Your task to perform on an android device: Search for sushi restaurants on Maps Image 0: 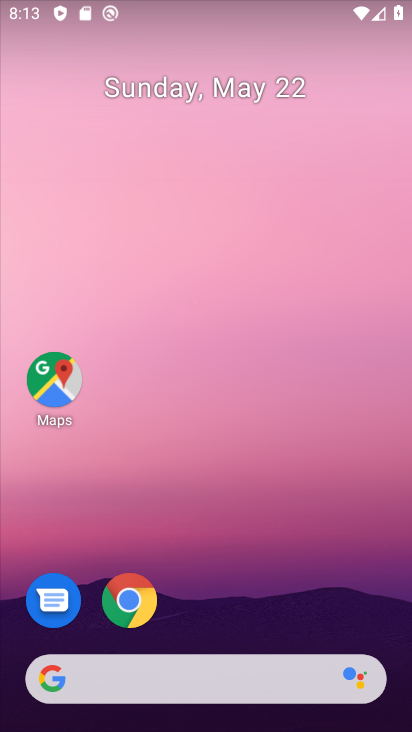
Step 0: drag from (221, 663) to (187, 130)
Your task to perform on an android device: Search for sushi restaurants on Maps Image 1: 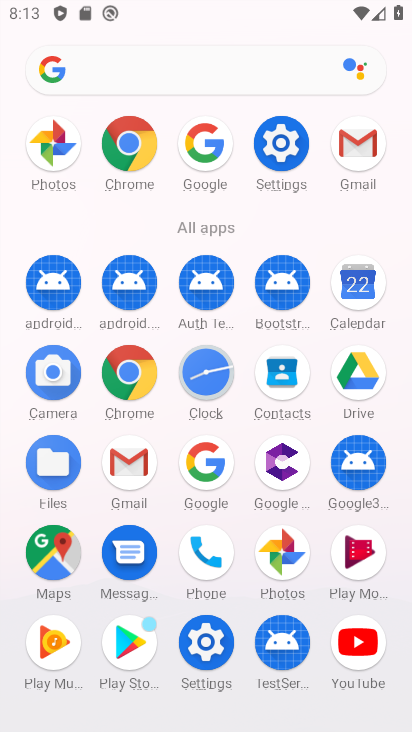
Step 1: click (57, 582)
Your task to perform on an android device: Search for sushi restaurants on Maps Image 2: 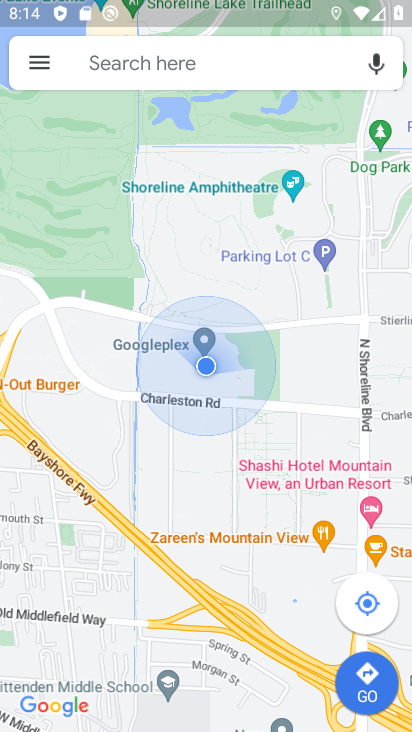
Step 2: click (57, 582)
Your task to perform on an android device: Search for sushi restaurants on Maps Image 3: 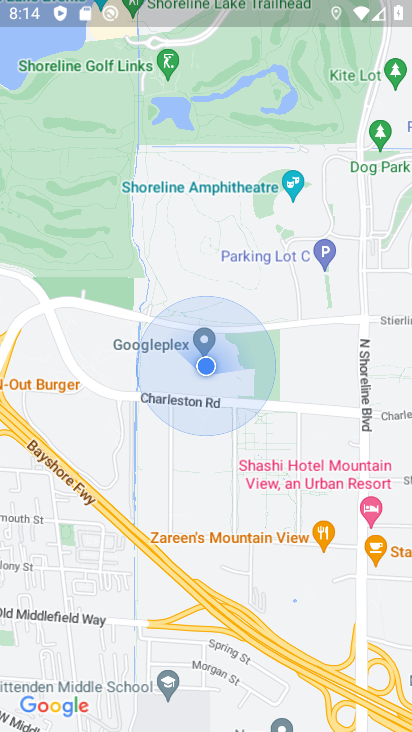
Step 3: drag from (204, 378) to (206, 484)
Your task to perform on an android device: Search for sushi restaurants on Maps Image 4: 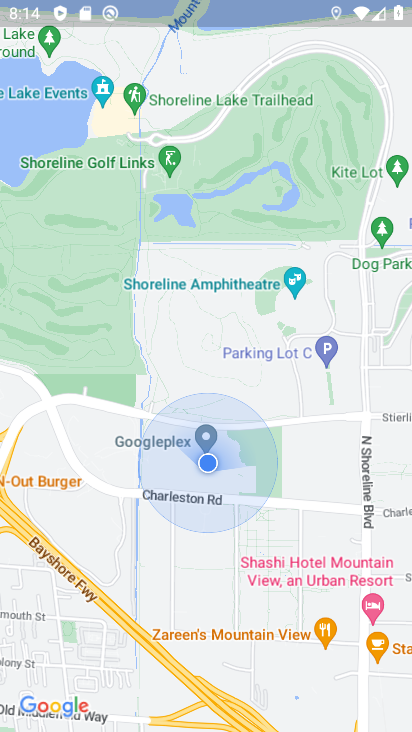
Step 4: click (285, 386)
Your task to perform on an android device: Search for sushi restaurants on Maps Image 5: 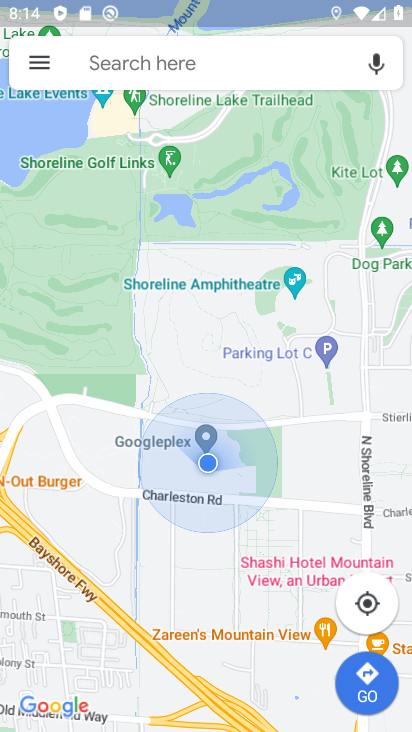
Step 5: click (281, 59)
Your task to perform on an android device: Search for sushi restaurants on Maps Image 6: 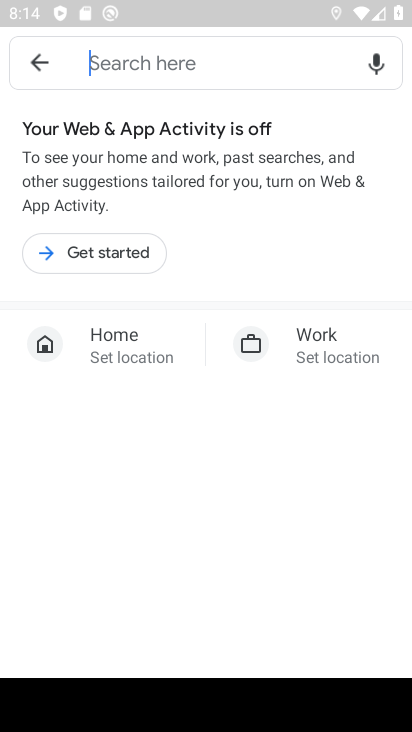
Step 6: type "syshi "
Your task to perform on an android device: Search for sushi restaurants on Maps Image 7: 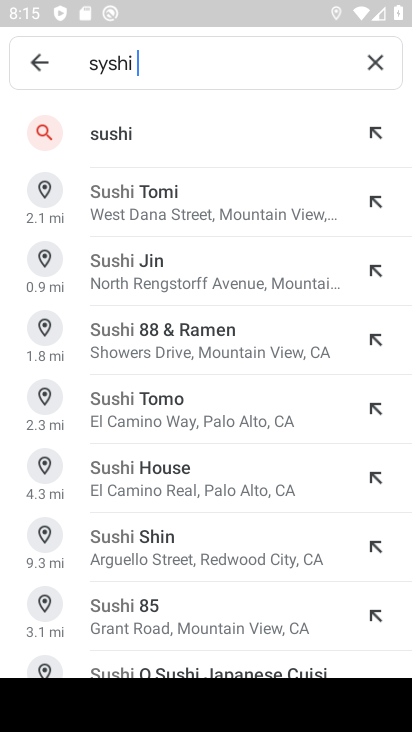
Step 7: click (375, 62)
Your task to perform on an android device: Search for sushi restaurants on Maps Image 8: 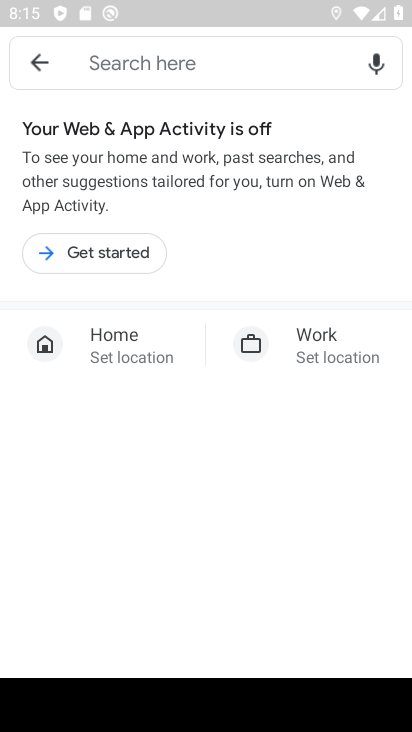
Step 8: type "sushi"
Your task to perform on an android device: Search for sushi restaurants on Maps Image 9: 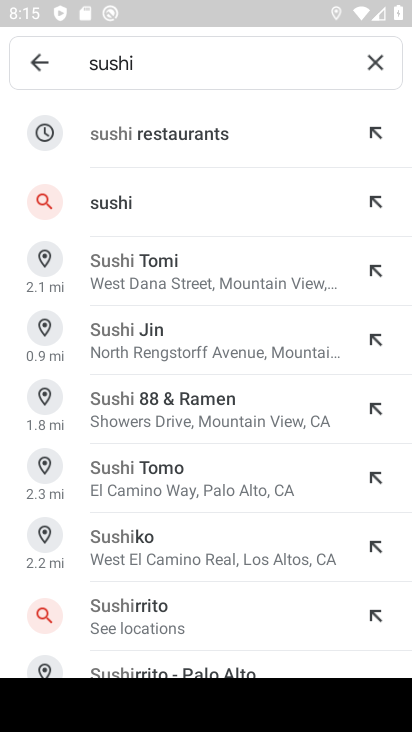
Step 9: click (179, 136)
Your task to perform on an android device: Search for sushi restaurants on Maps Image 10: 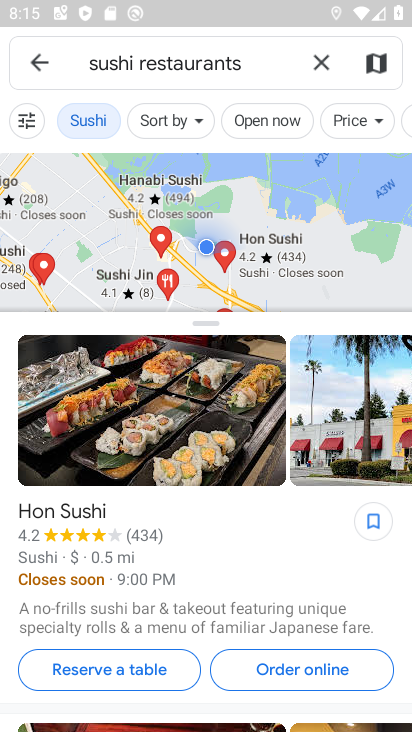
Step 10: task complete